Your task to perform on an android device: Empty the shopping cart on amazon. Search for usb-c to usb-b on amazon, select the first entry, and add it to the cart. Image 0: 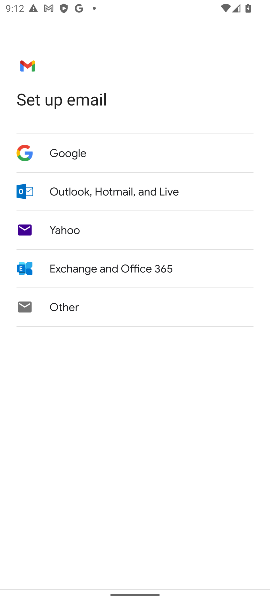
Step 0: press home button
Your task to perform on an android device: Empty the shopping cart on amazon. Search for usb-c to usb-b on amazon, select the first entry, and add it to the cart. Image 1: 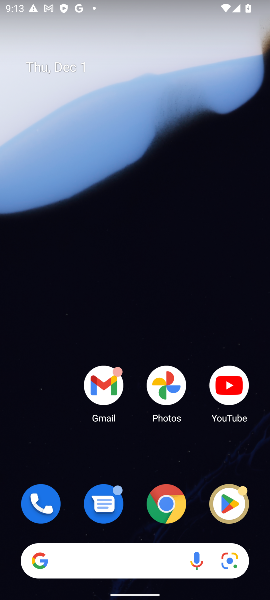
Step 1: click (171, 506)
Your task to perform on an android device: Empty the shopping cart on amazon. Search for usb-c to usb-b on amazon, select the first entry, and add it to the cart. Image 2: 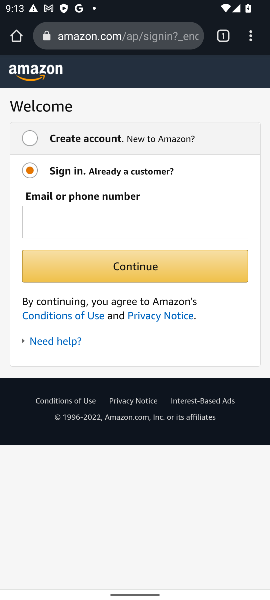
Step 2: click (36, 70)
Your task to perform on an android device: Empty the shopping cart on amazon. Search for usb-c to usb-b on amazon, select the first entry, and add it to the cart. Image 3: 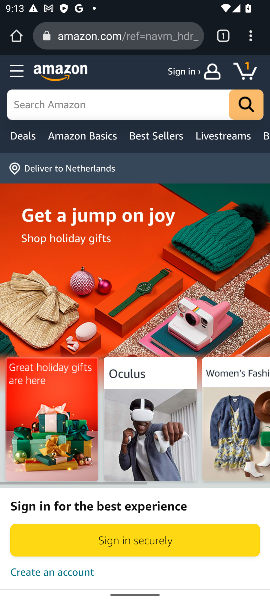
Step 3: click (248, 74)
Your task to perform on an android device: Empty the shopping cart on amazon. Search for usb-c to usb-b on amazon, select the first entry, and add it to the cart. Image 4: 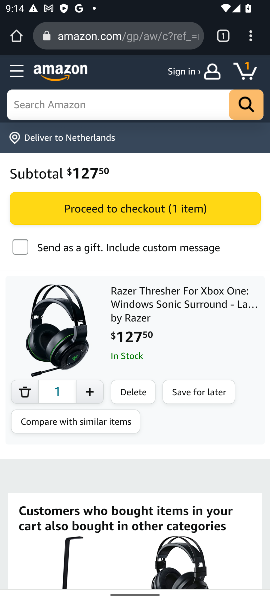
Step 4: click (136, 391)
Your task to perform on an android device: Empty the shopping cart on amazon. Search for usb-c to usb-b on amazon, select the first entry, and add it to the cart. Image 5: 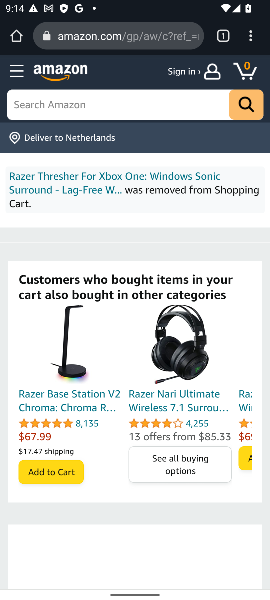
Step 5: click (130, 106)
Your task to perform on an android device: Empty the shopping cart on amazon. Search for usb-c to usb-b on amazon, select the first entry, and add it to the cart. Image 6: 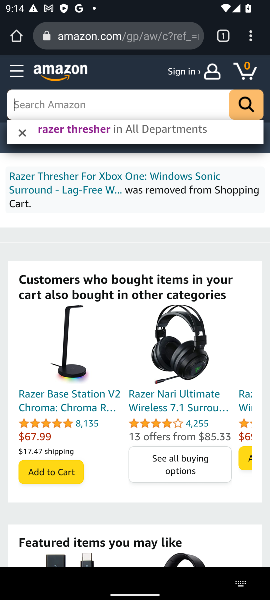
Step 6: type "usb-c to usb-b"
Your task to perform on an android device: Empty the shopping cart on amazon. Search for usb-c to usb-b on amazon, select the first entry, and add it to the cart. Image 7: 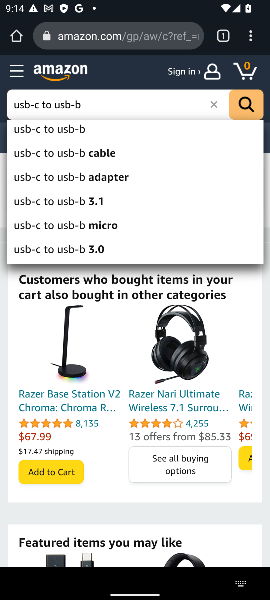
Step 7: click (88, 134)
Your task to perform on an android device: Empty the shopping cart on amazon. Search for usb-c to usb-b on amazon, select the first entry, and add it to the cart. Image 8: 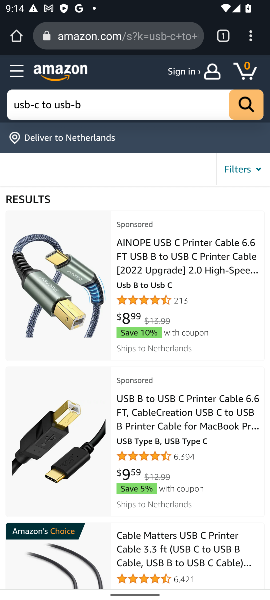
Step 8: click (51, 299)
Your task to perform on an android device: Empty the shopping cart on amazon. Search for usb-c to usb-b on amazon, select the first entry, and add it to the cart. Image 9: 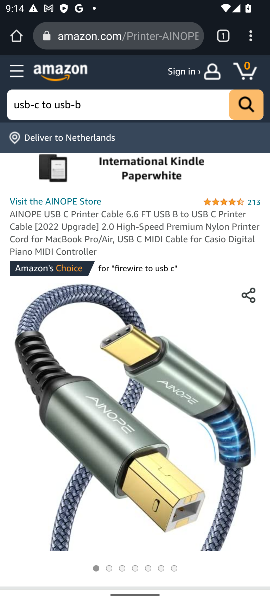
Step 9: drag from (123, 507) to (109, 195)
Your task to perform on an android device: Empty the shopping cart on amazon. Search for usb-c to usb-b on amazon, select the first entry, and add it to the cart. Image 10: 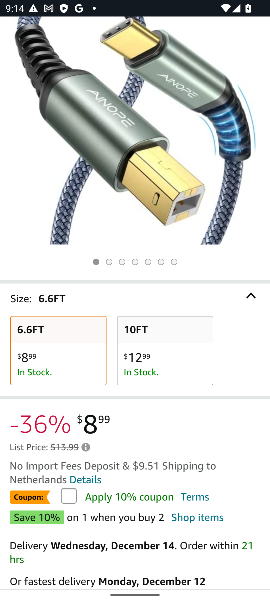
Step 10: drag from (215, 504) to (184, 175)
Your task to perform on an android device: Empty the shopping cart on amazon. Search for usb-c to usb-b on amazon, select the first entry, and add it to the cart. Image 11: 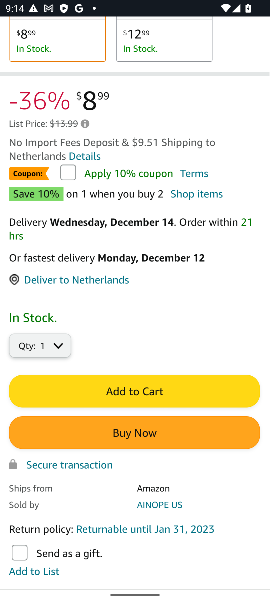
Step 11: click (139, 390)
Your task to perform on an android device: Empty the shopping cart on amazon. Search for usb-c to usb-b on amazon, select the first entry, and add it to the cart. Image 12: 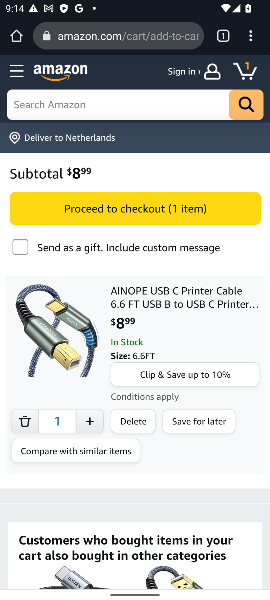
Step 12: task complete